Your task to perform on an android device: Open eBay Image 0: 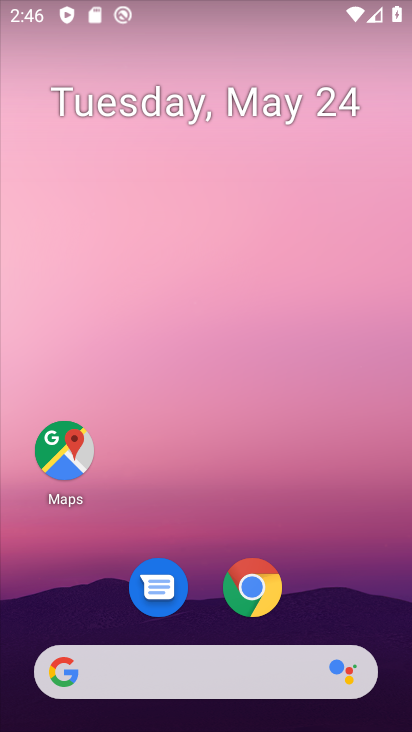
Step 0: click (254, 585)
Your task to perform on an android device: Open eBay Image 1: 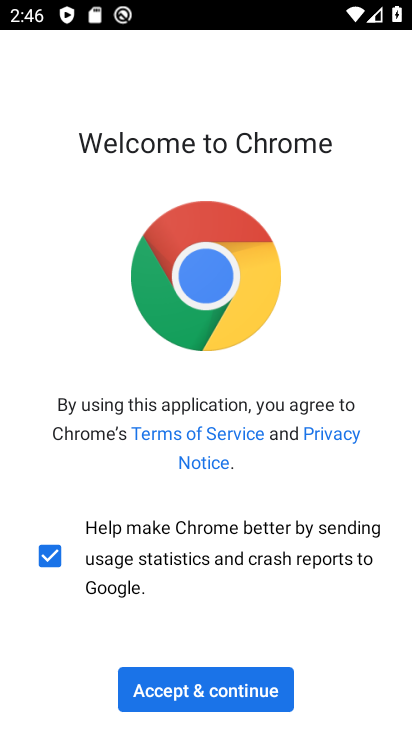
Step 1: click (206, 685)
Your task to perform on an android device: Open eBay Image 2: 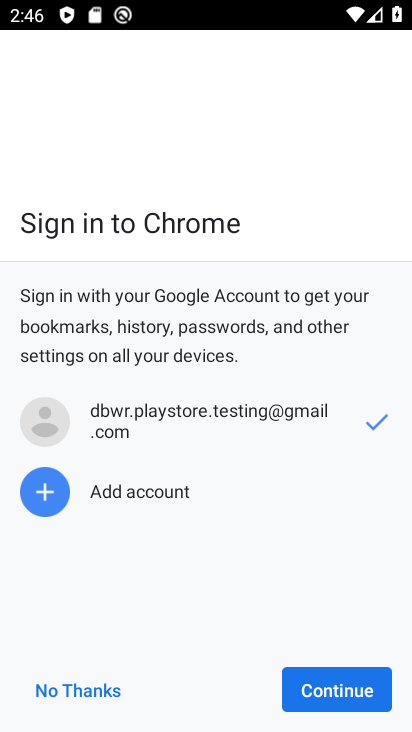
Step 2: click (324, 688)
Your task to perform on an android device: Open eBay Image 3: 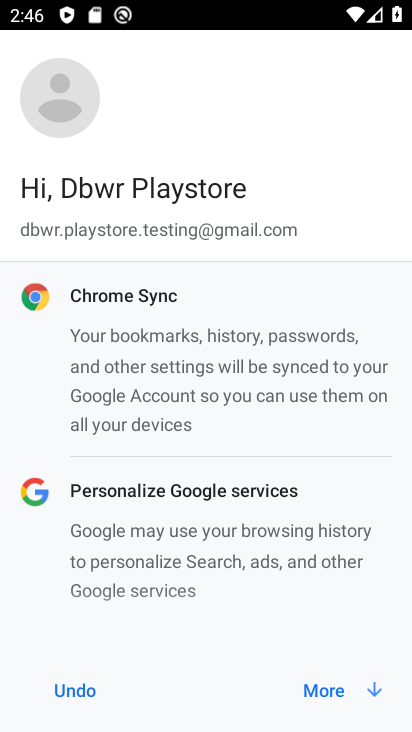
Step 3: click (326, 682)
Your task to perform on an android device: Open eBay Image 4: 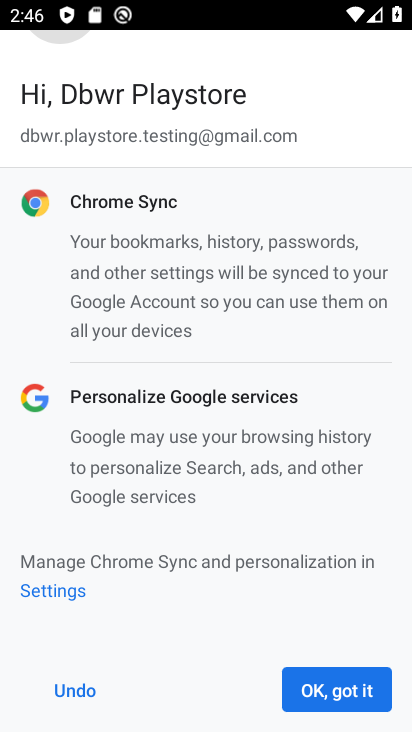
Step 4: click (326, 681)
Your task to perform on an android device: Open eBay Image 5: 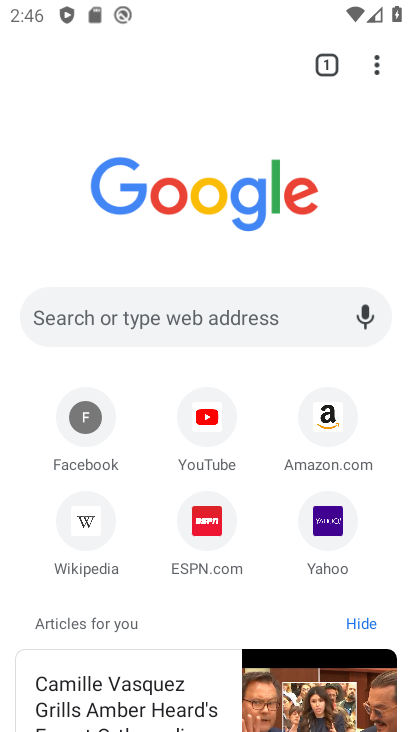
Step 5: click (171, 309)
Your task to perform on an android device: Open eBay Image 6: 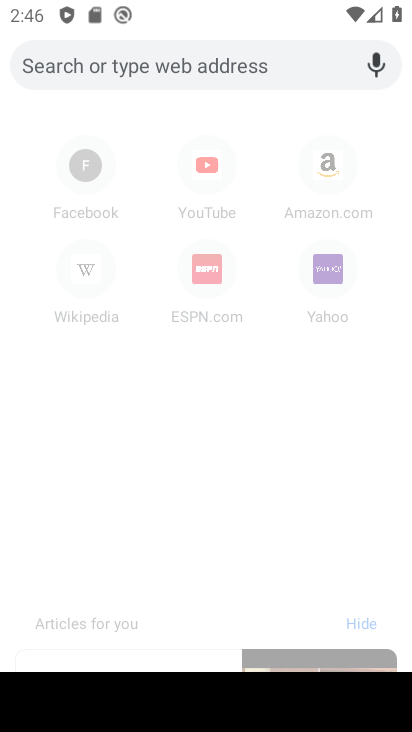
Step 6: type "eBay"
Your task to perform on an android device: Open eBay Image 7: 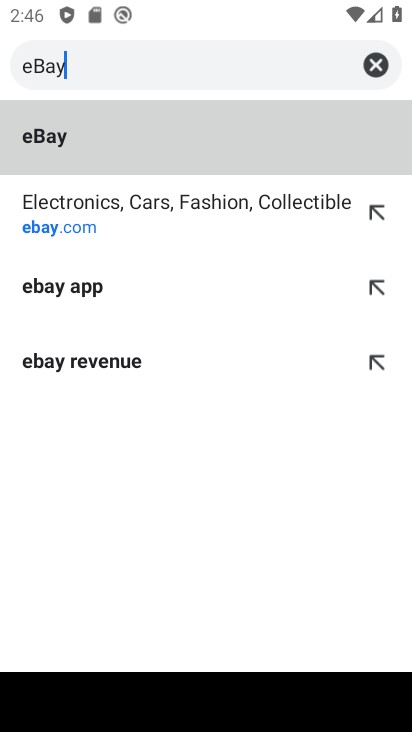
Step 7: click (167, 131)
Your task to perform on an android device: Open eBay Image 8: 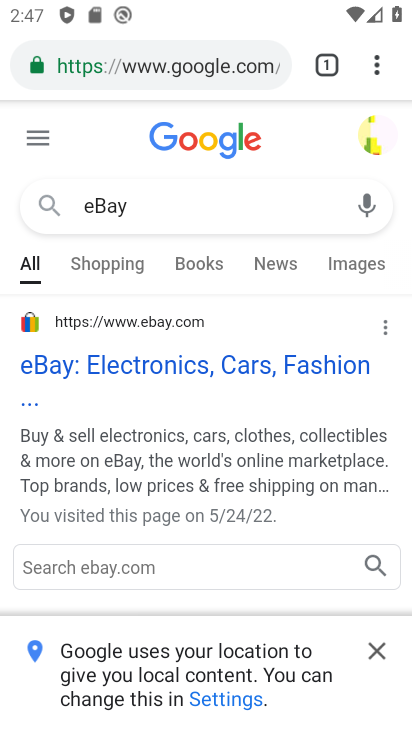
Step 8: task complete